Your task to perform on an android device: Turn on the flashlight Image 0: 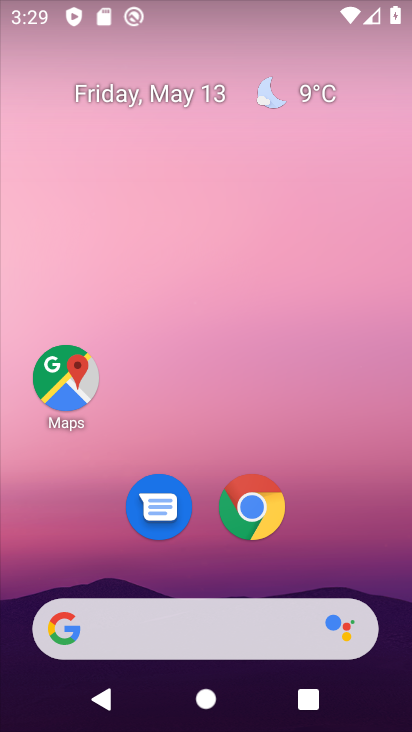
Step 0: drag from (344, 528) to (328, 38)
Your task to perform on an android device: Turn on the flashlight Image 1: 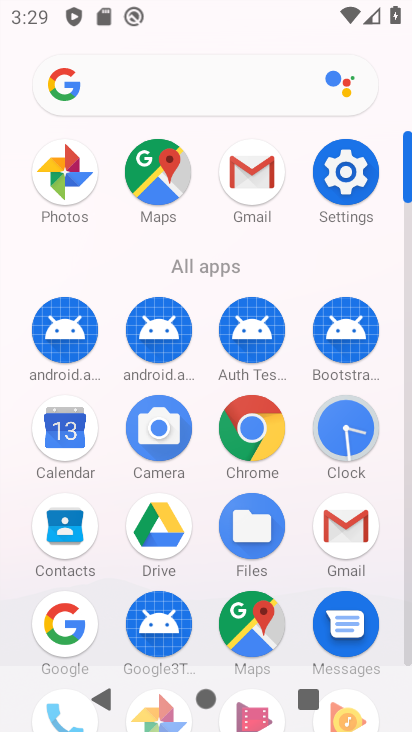
Step 1: click (320, 189)
Your task to perform on an android device: Turn on the flashlight Image 2: 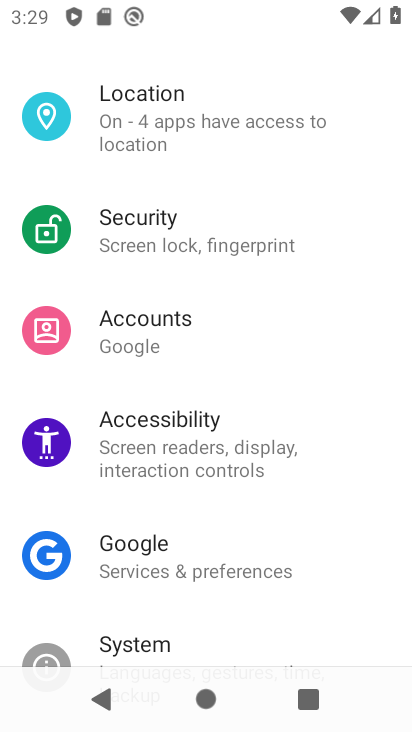
Step 2: task complete